Your task to perform on an android device: Open Google Chrome and click the shortcut for Amazon.com Image 0: 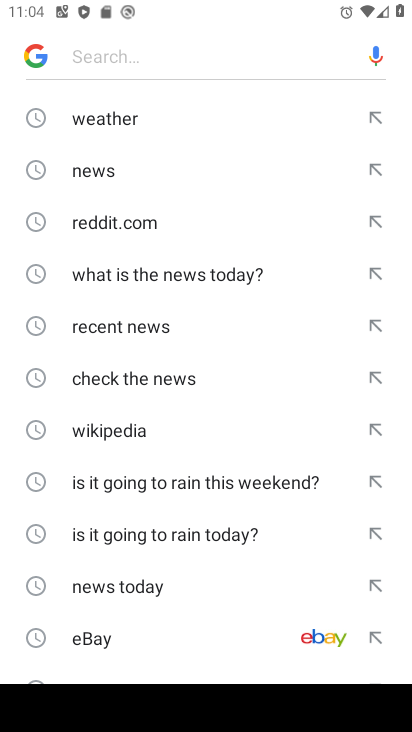
Step 0: press home button
Your task to perform on an android device: Open Google Chrome and click the shortcut for Amazon.com Image 1: 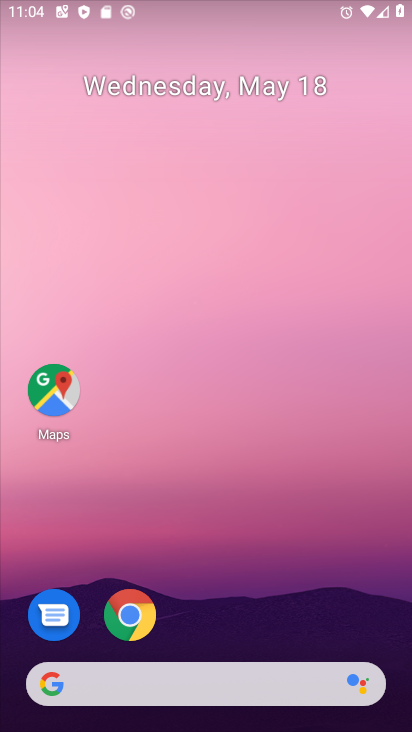
Step 1: drag from (172, 656) to (190, 277)
Your task to perform on an android device: Open Google Chrome and click the shortcut for Amazon.com Image 2: 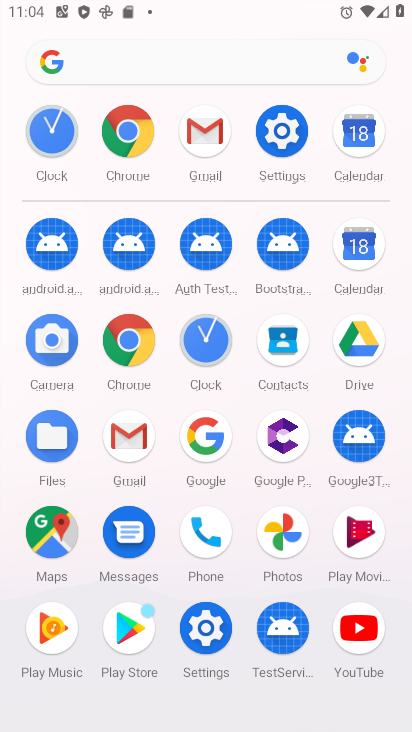
Step 2: click (138, 127)
Your task to perform on an android device: Open Google Chrome and click the shortcut for Amazon.com Image 3: 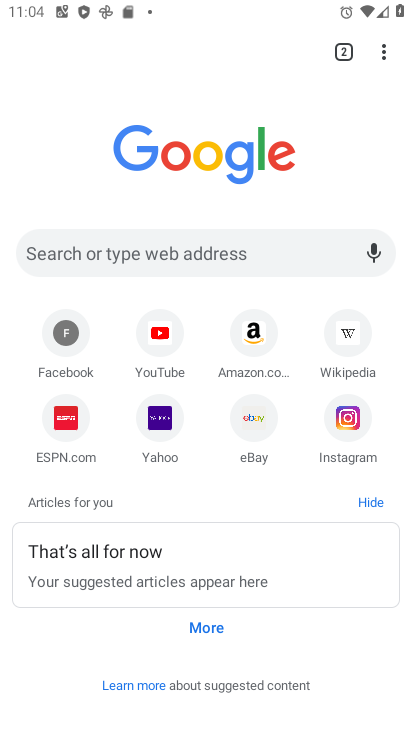
Step 3: click (258, 330)
Your task to perform on an android device: Open Google Chrome and click the shortcut for Amazon.com Image 4: 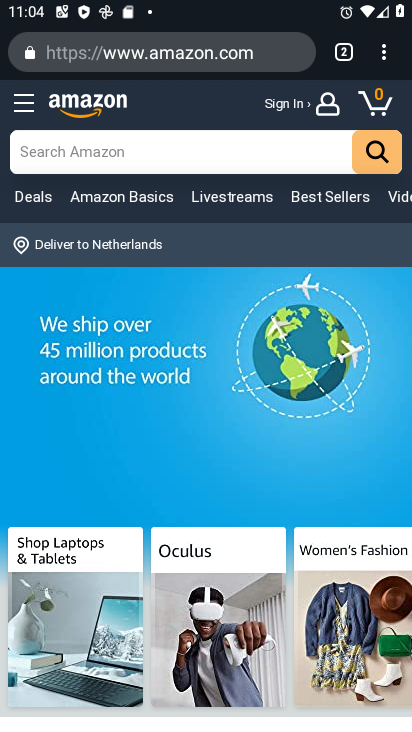
Step 4: task complete